Your task to perform on an android device: Search for a new lawnmower on Lowes. Image 0: 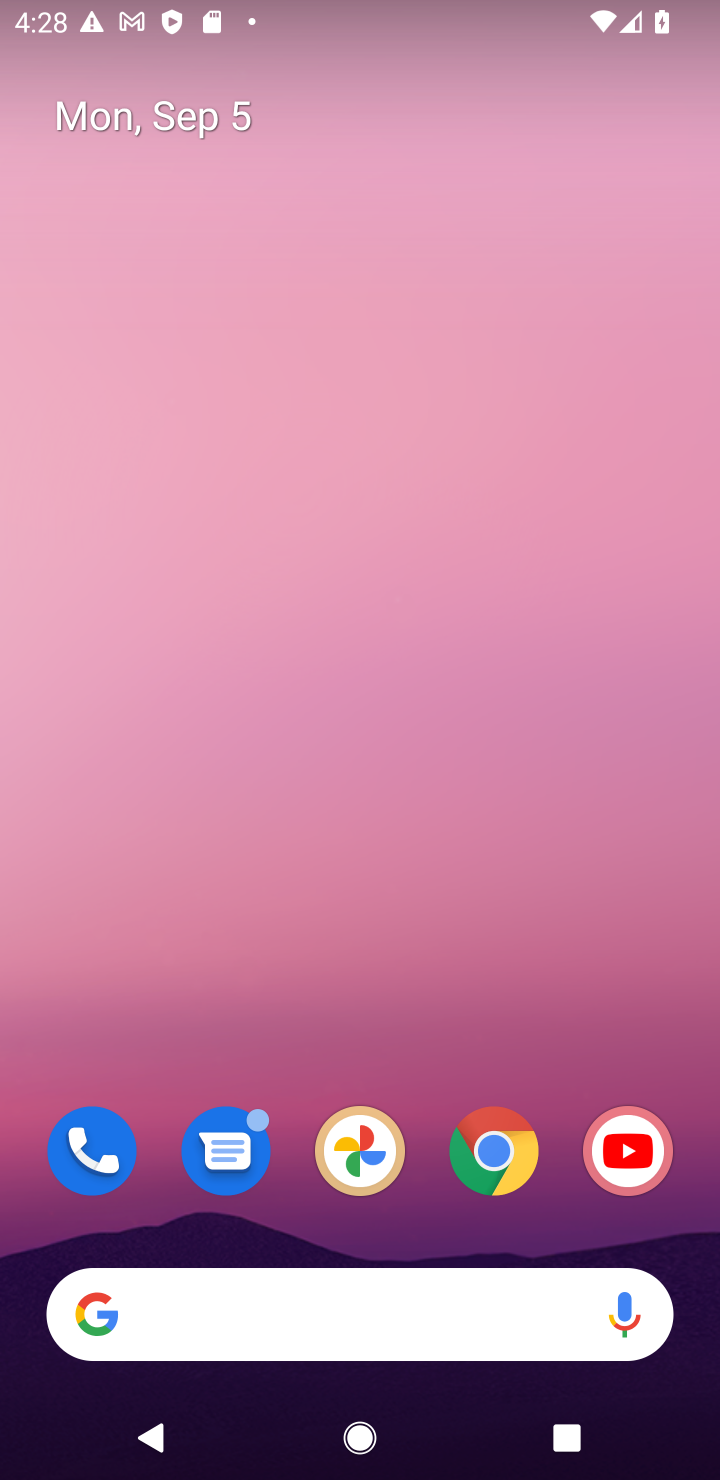
Step 0: drag from (328, 1242) to (375, 250)
Your task to perform on an android device: Search for a new lawnmower on Lowes. Image 1: 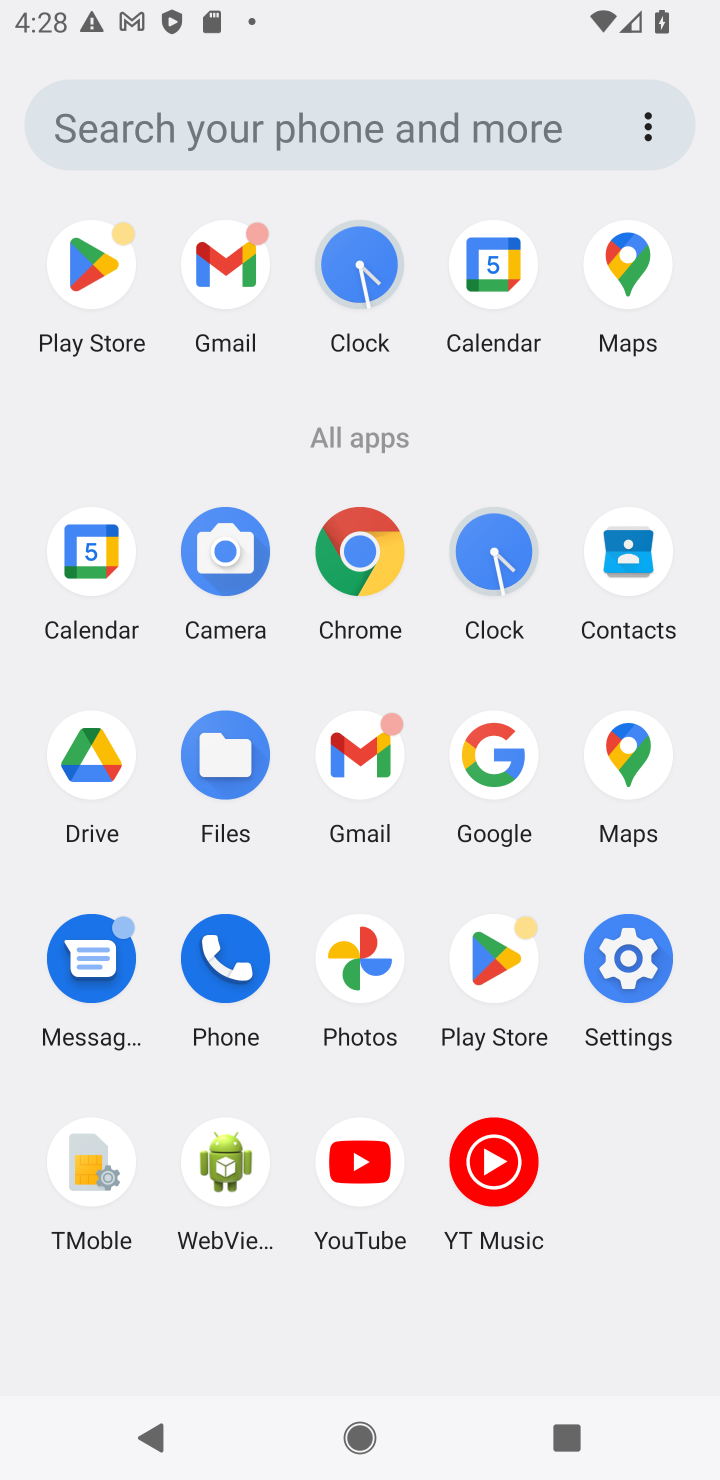
Step 1: click (383, 560)
Your task to perform on an android device: Search for a new lawnmower on Lowes. Image 2: 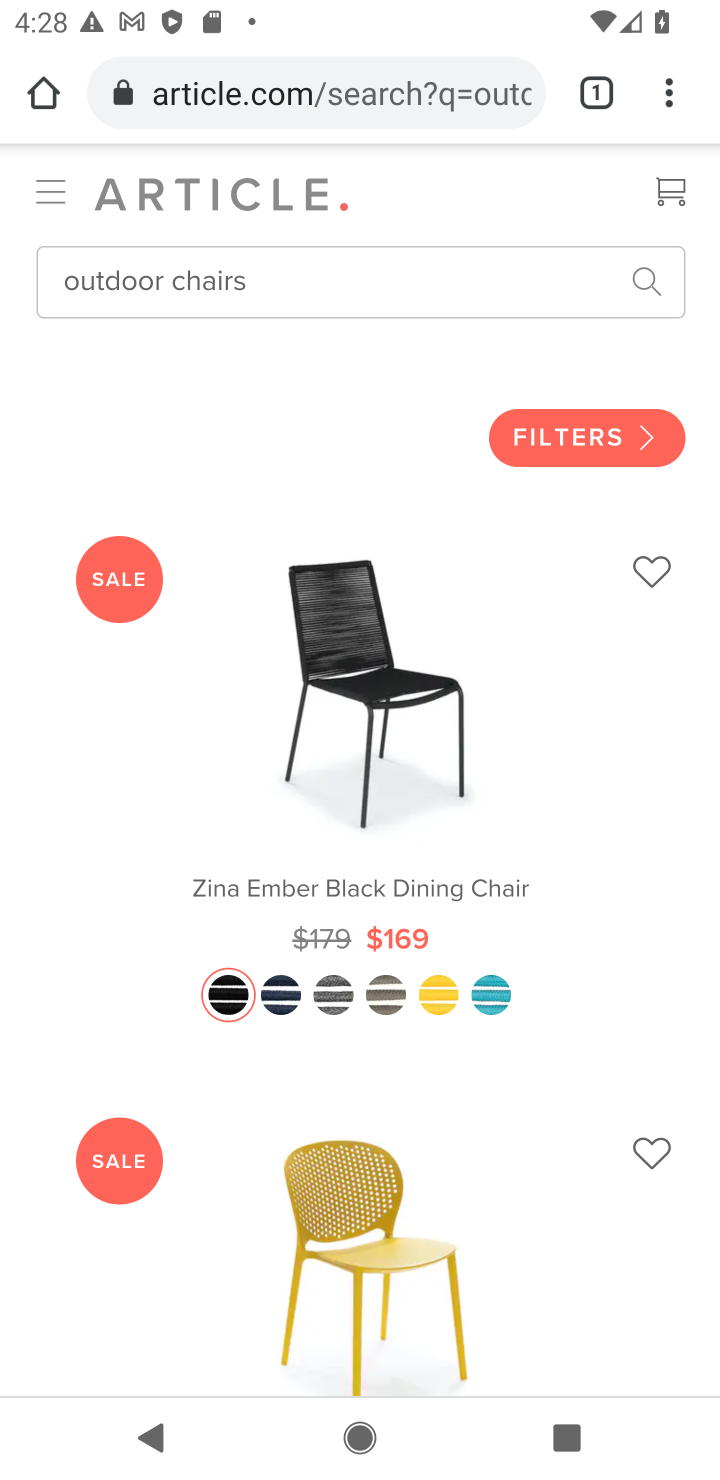
Step 2: click (348, 114)
Your task to perform on an android device: Search for a new lawnmower on Lowes. Image 3: 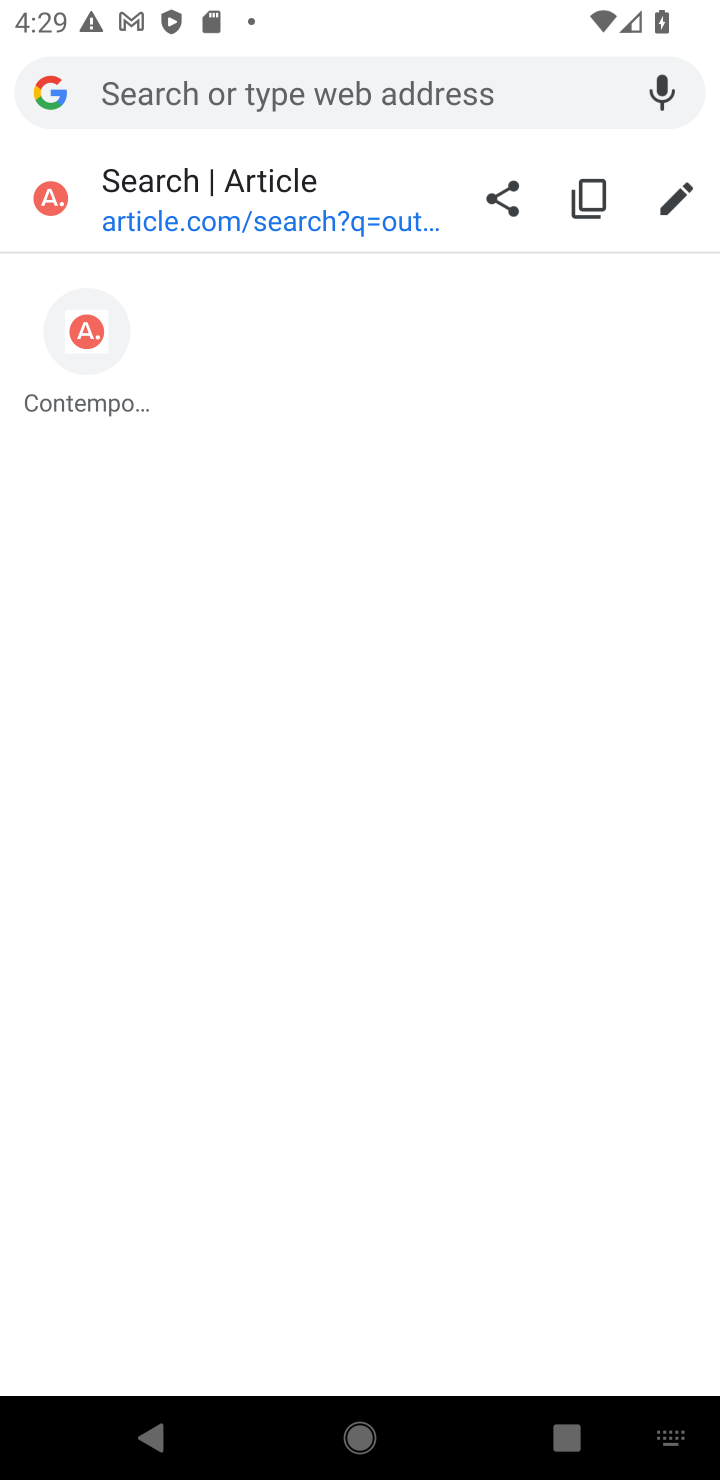
Step 3: type "new lawnmover"
Your task to perform on an android device: Search for a new lawnmower on Lowes. Image 4: 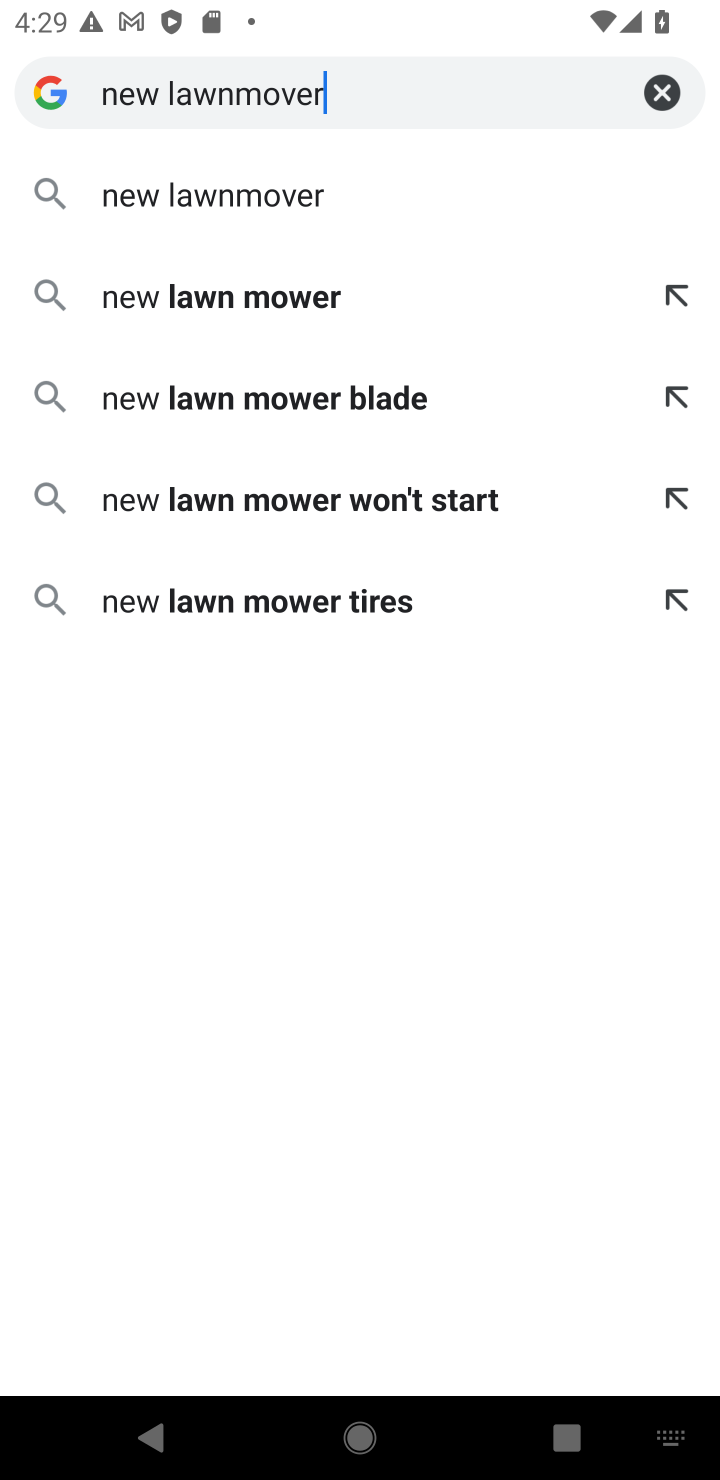
Step 4: click (667, 96)
Your task to perform on an android device: Search for a new lawnmower on Lowes. Image 5: 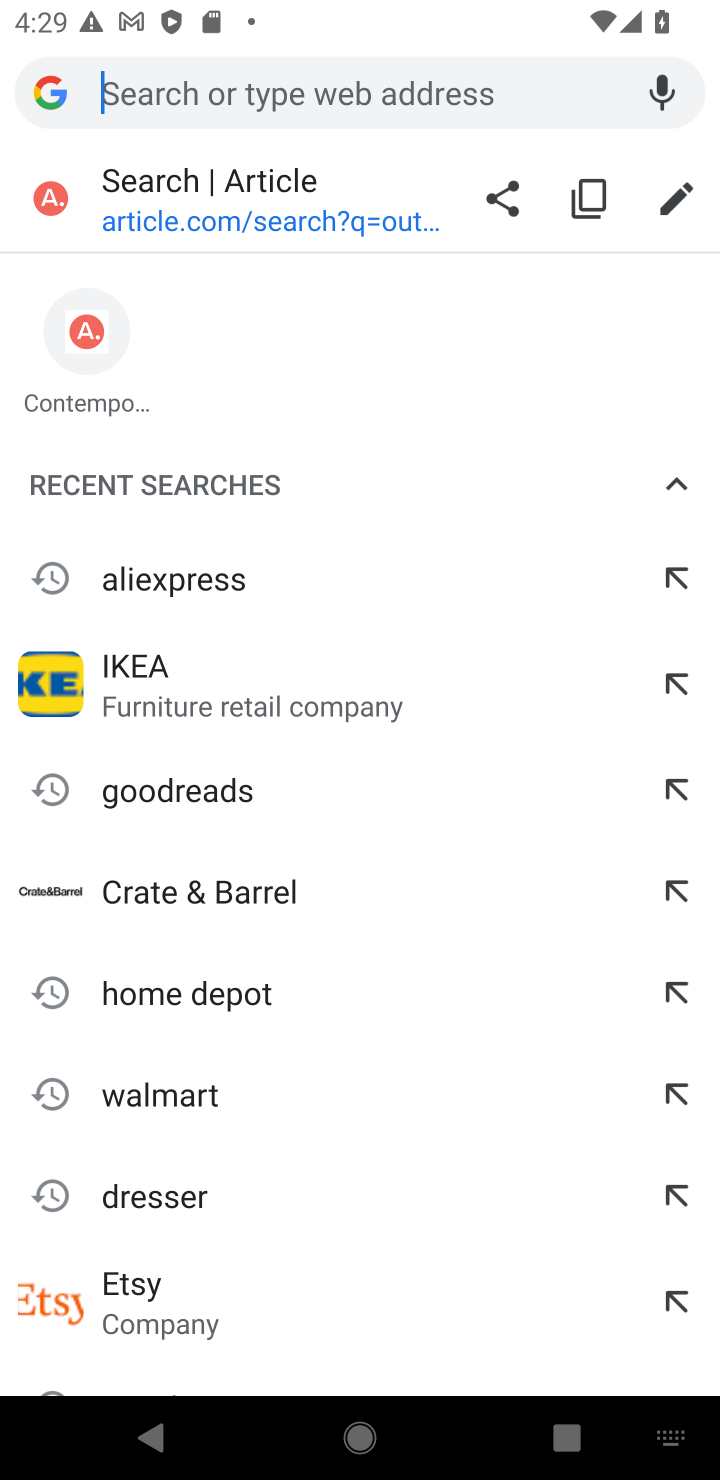
Step 5: type "lowesa"
Your task to perform on an android device: Search for a new lawnmower on Lowes. Image 6: 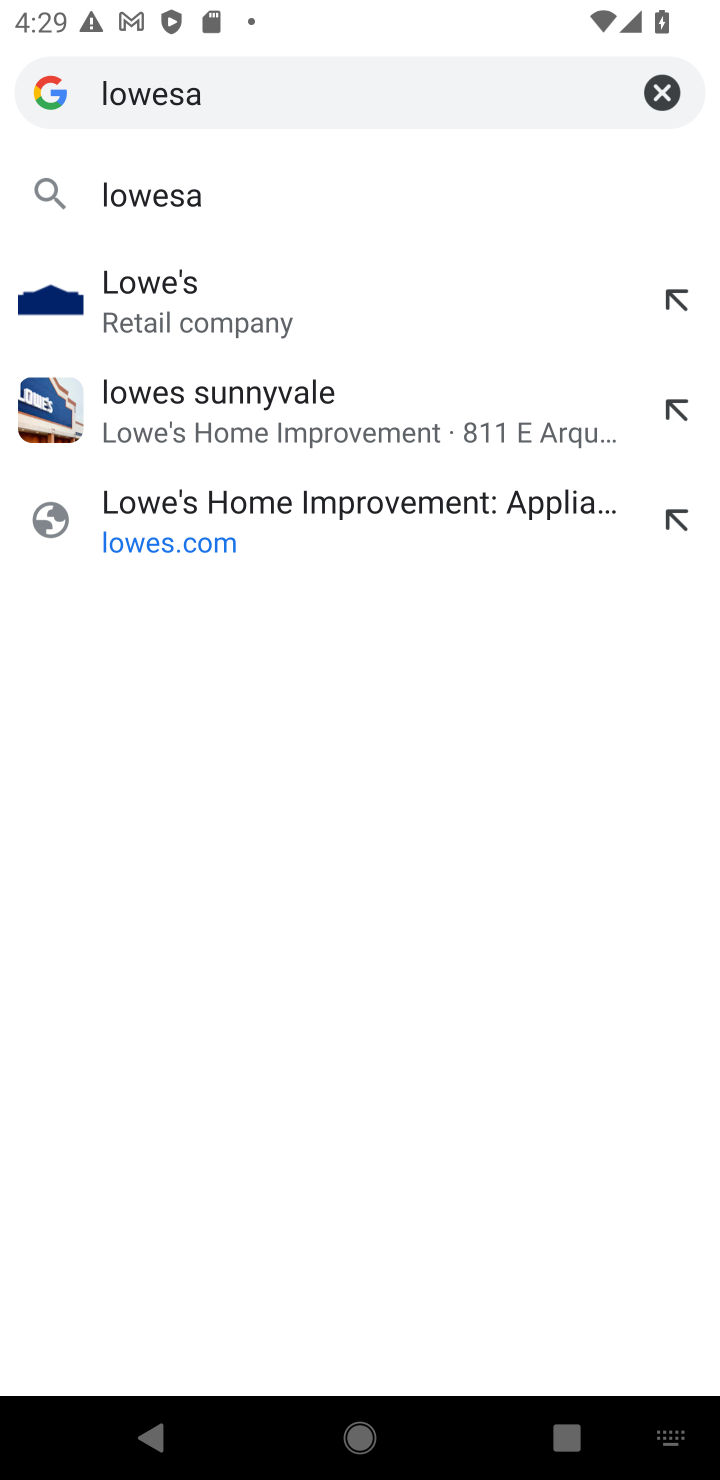
Step 6: click (362, 326)
Your task to perform on an android device: Search for a new lawnmower on Lowes. Image 7: 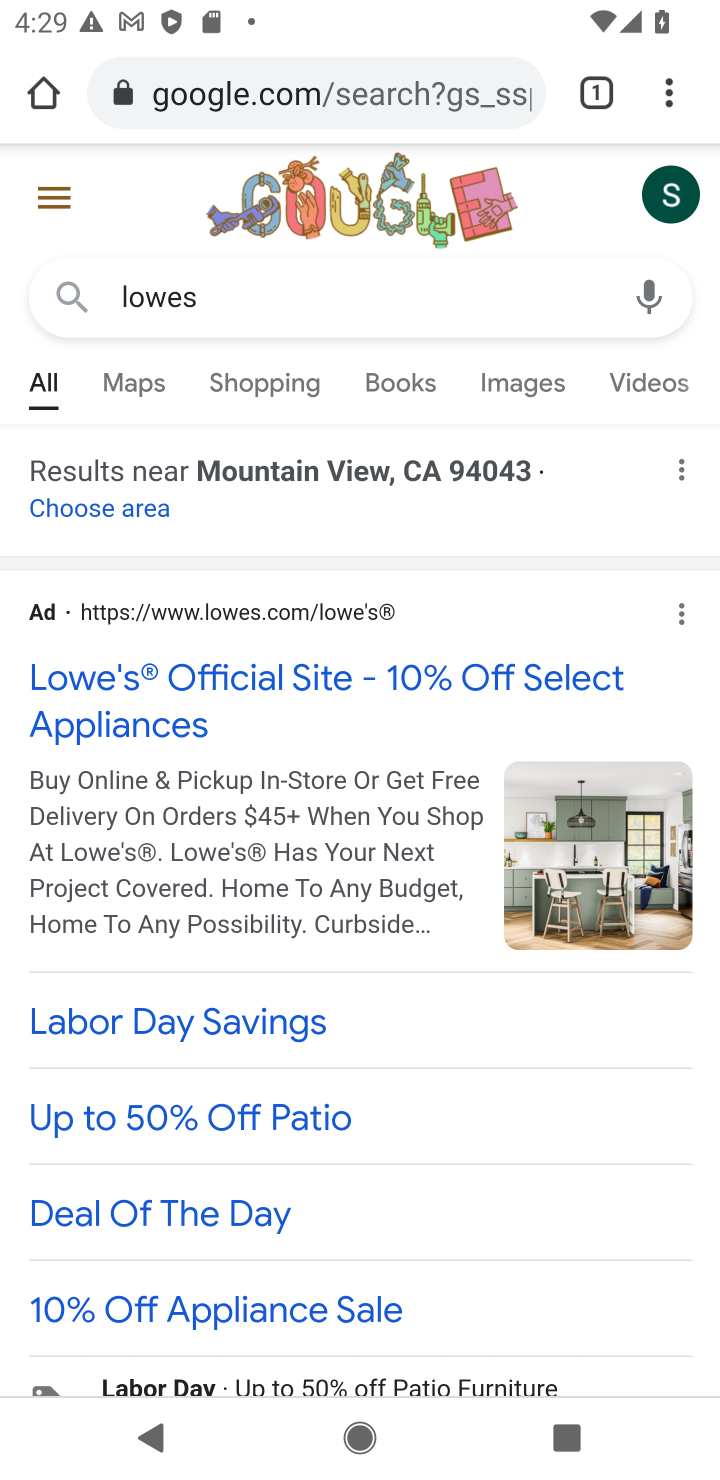
Step 7: click (300, 156)
Your task to perform on an android device: Search for a new lawnmower on Lowes. Image 8: 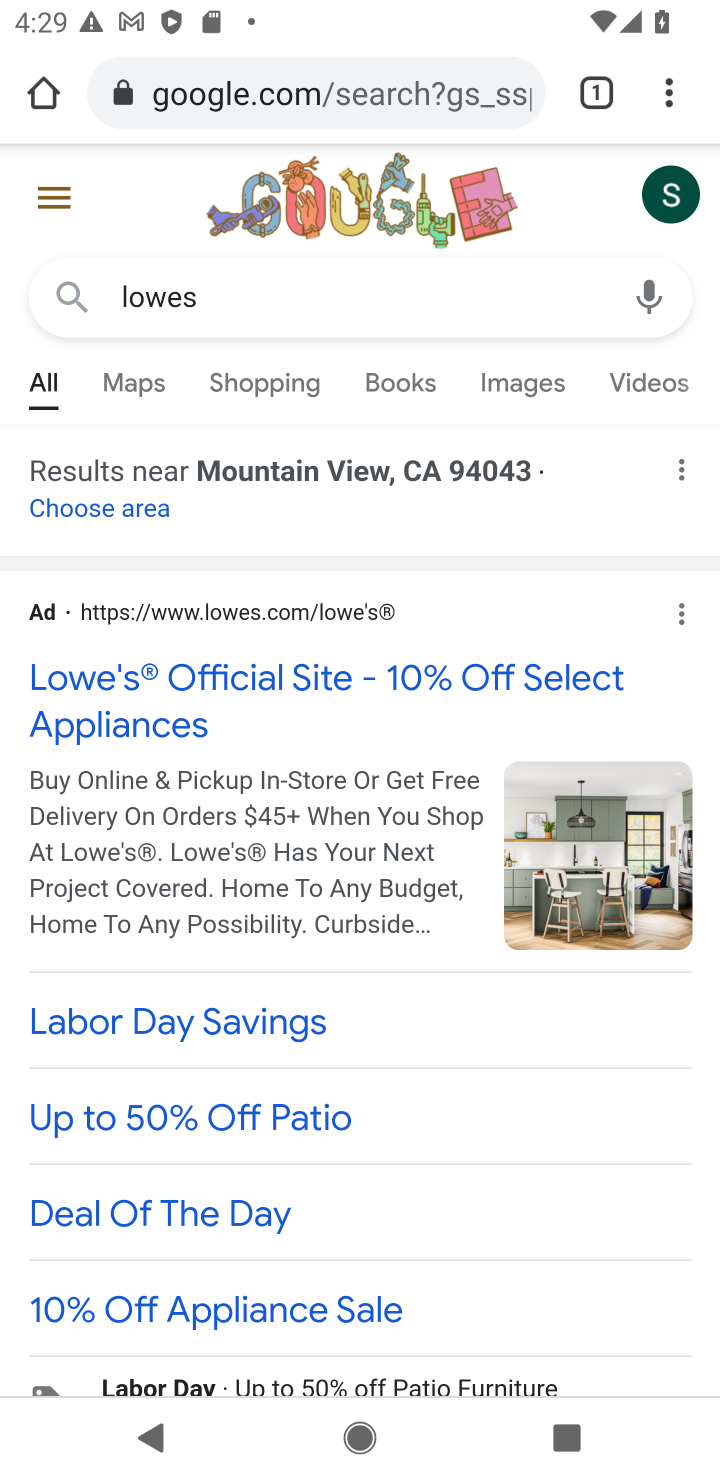
Step 8: drag from (509, 1179) to (475, 97)
Your task to perform on an android device: Search for a new lawnmower on Lowes. Image 9: 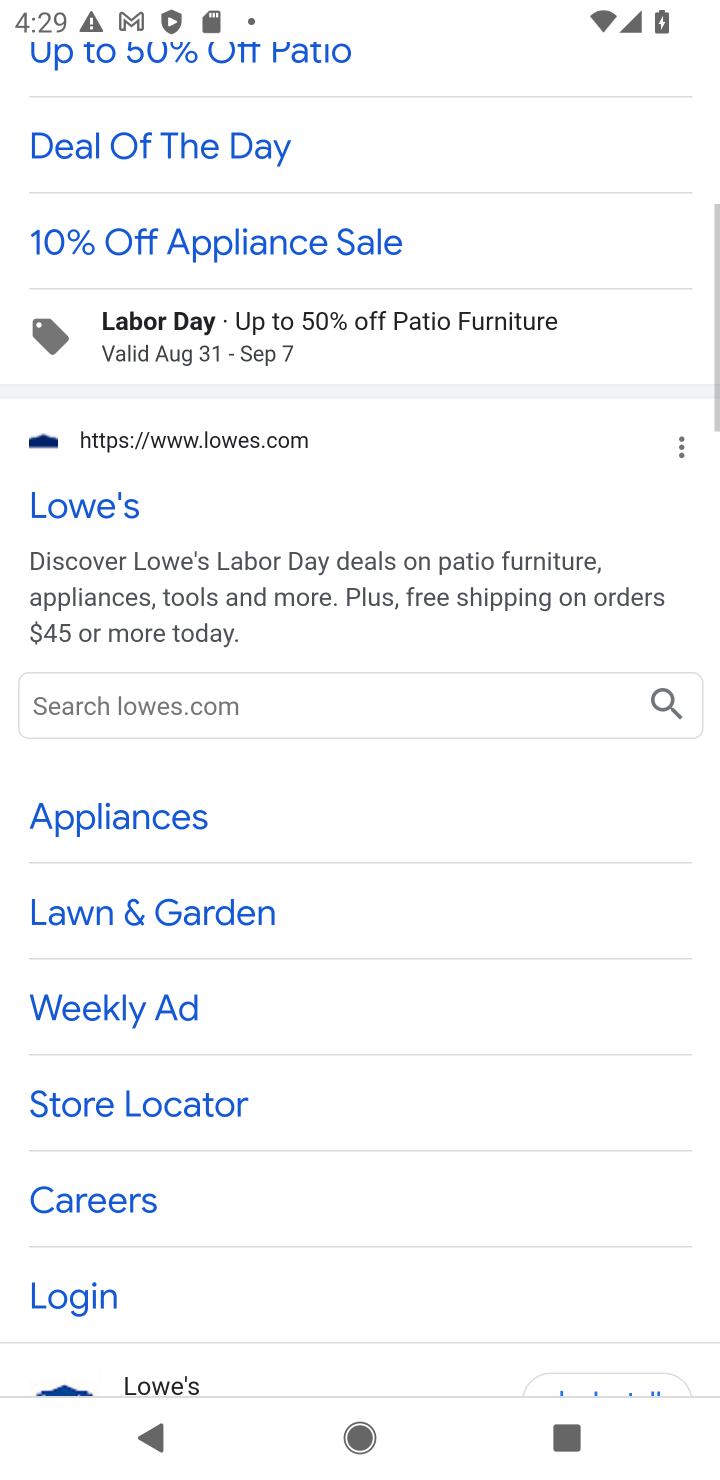
Step 9: click (106, 552)
Your task to perform on an android device: Search for a new lawnmower on Lowes. Image 10: 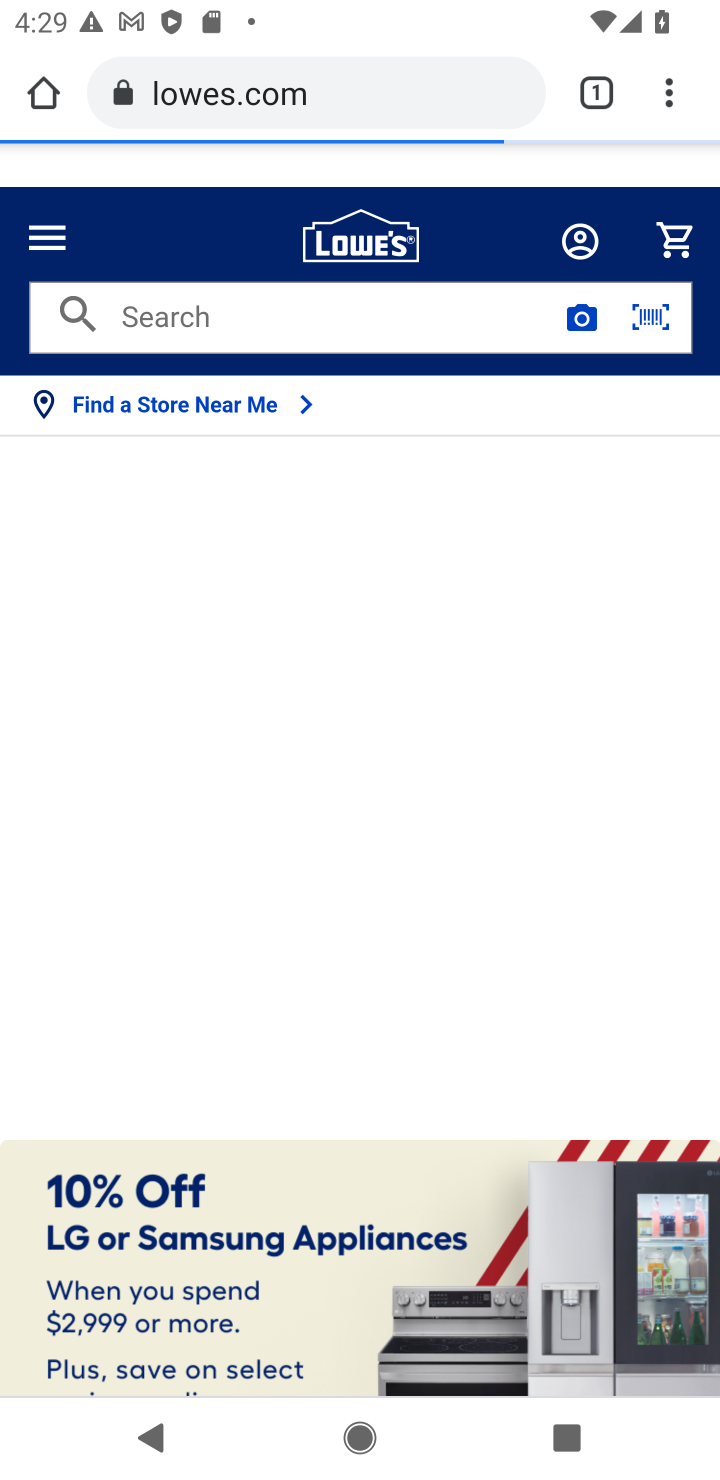
Step 10: click (415, 319)
Your task to perform on an android device: Search for a new lawnmower on Lowes. Image 11: 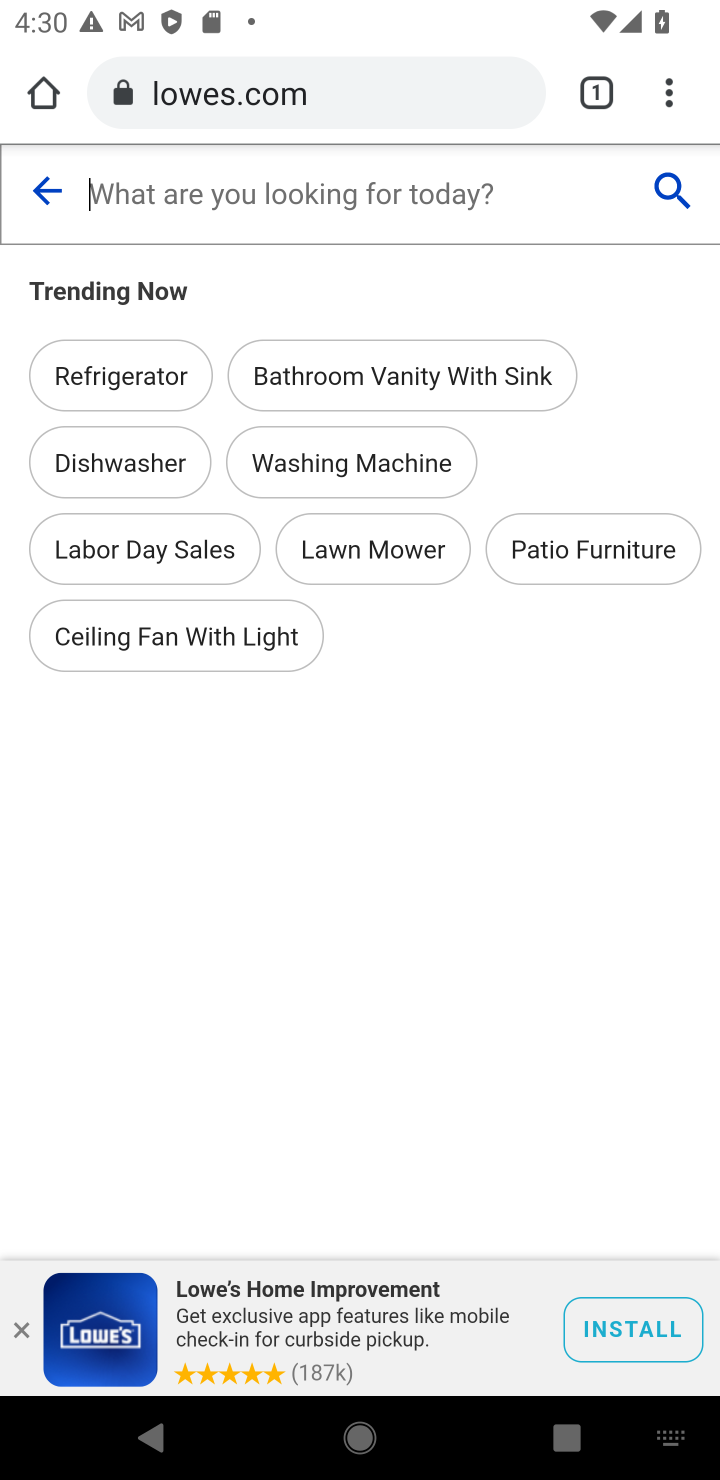
Step 11: type "new lawnmover"
Your task to perform on an android device: Search for a new lawnmower on Lowes. Image 12: 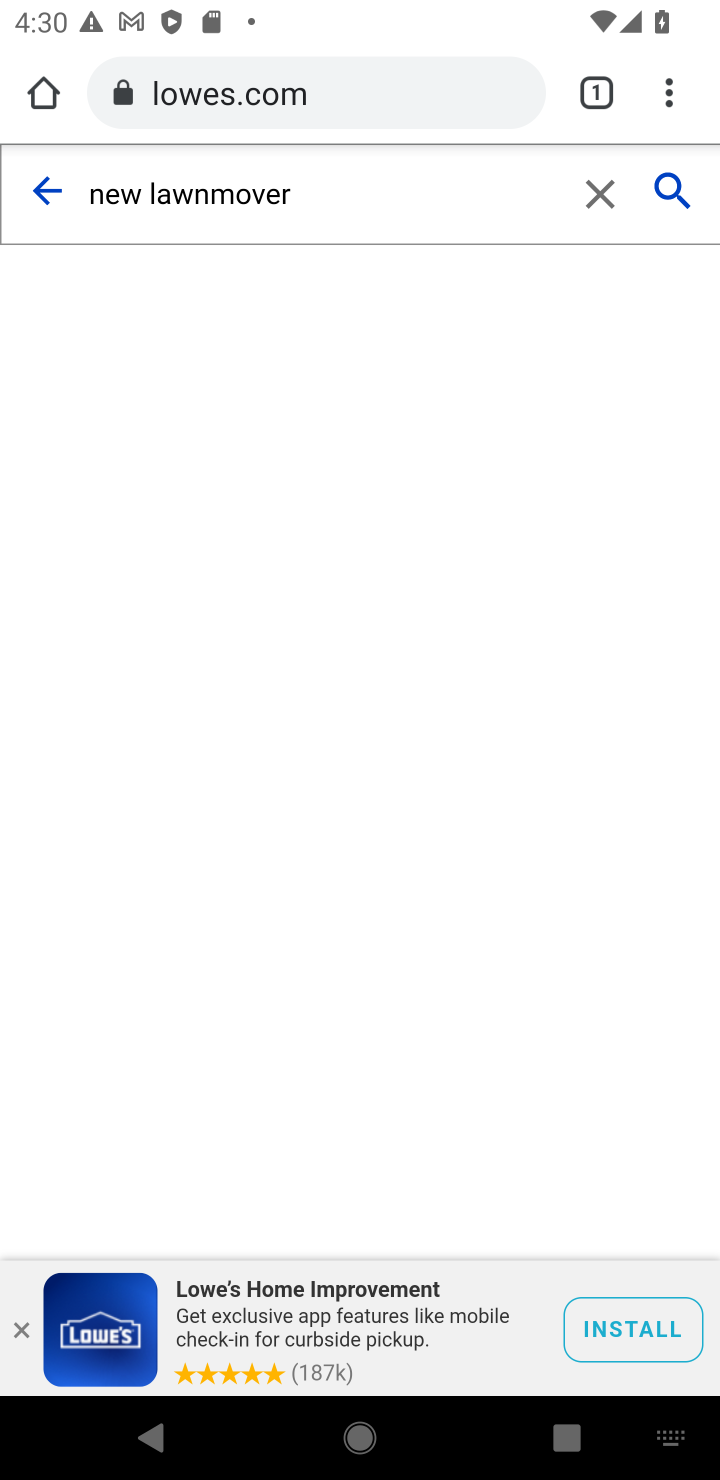
Step 12: click (670, 193)
Your task to perform on an android device: Search for a new lawnmower on Lowes. Image 13: 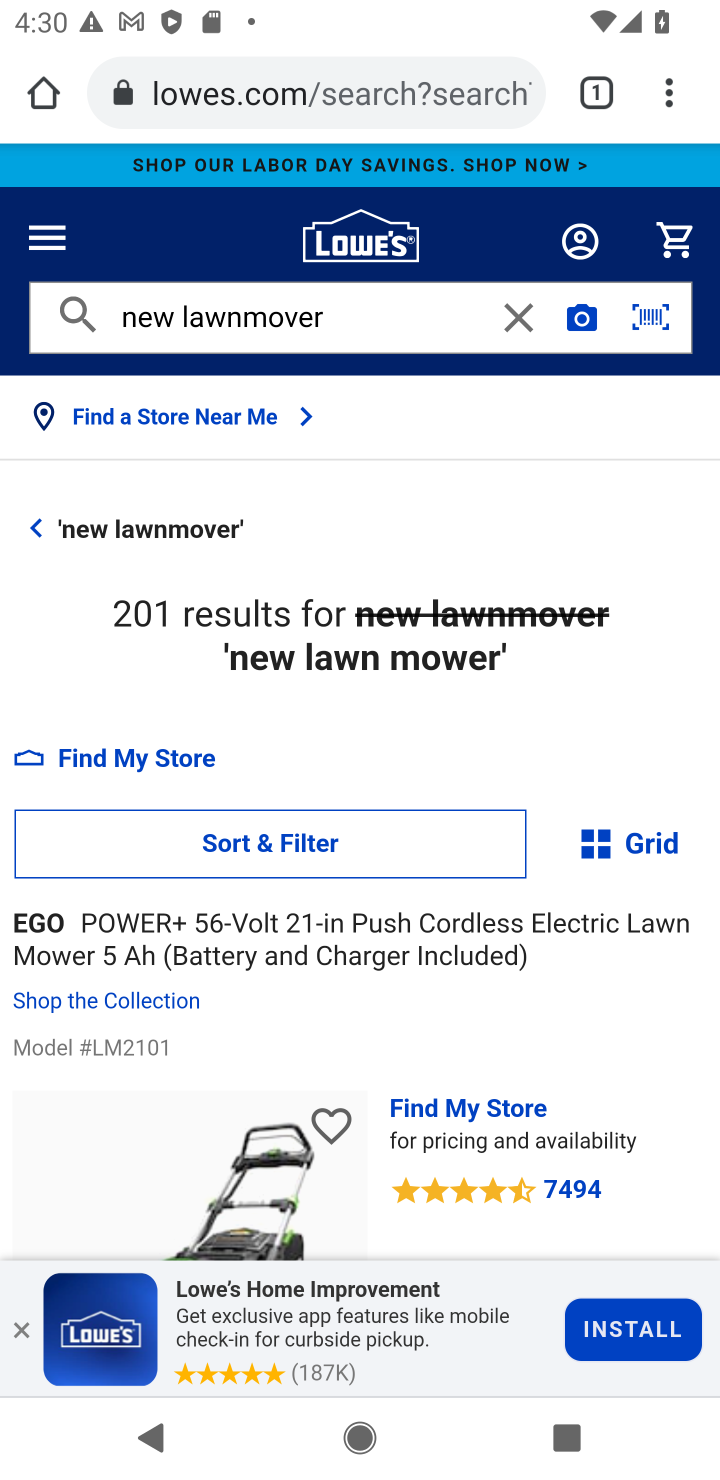
Step 13: task complete